Your task to perform on an android device: star an email in the gmail app Image 0: 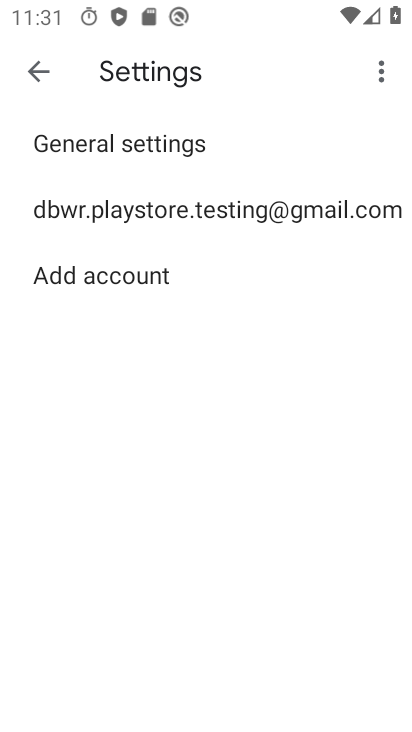
Step 0: click (38, 78)
Your task to perform on an android device: star an email in the gmail app Image 1: 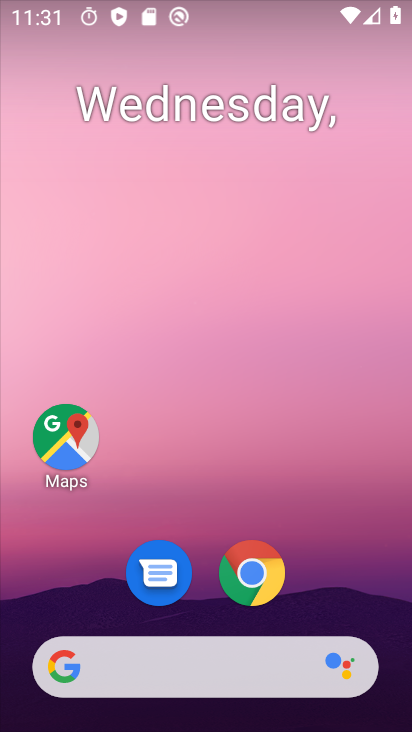
Step 1: drag from (357, 607) to (366, 335)
Your task to perform on an android device: star an email in the gmail app Image 2: 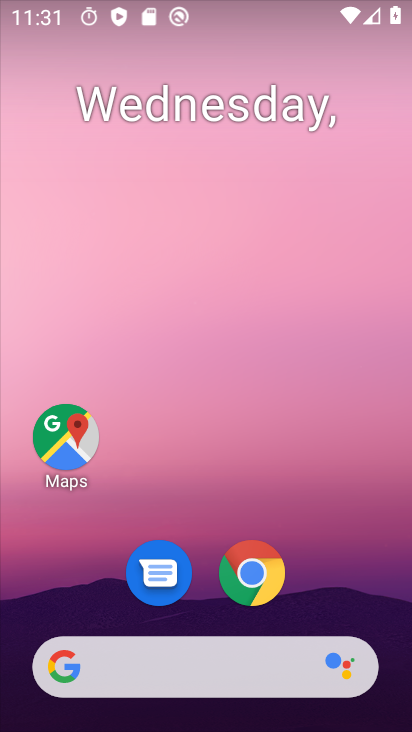
Step 2: drag from (387, 619) to (380, 242)
Your task to perform on an android device: star an email in the gmail app Image 3: 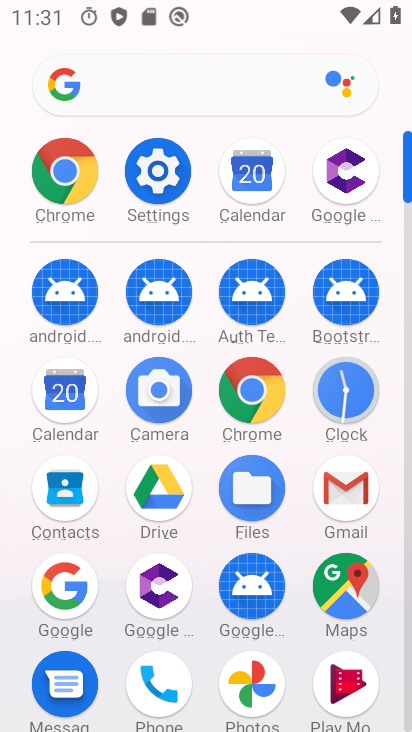
Step 3: click (331, 484)
Your task to perform on an android device: star an email in the gmail app Image 4: 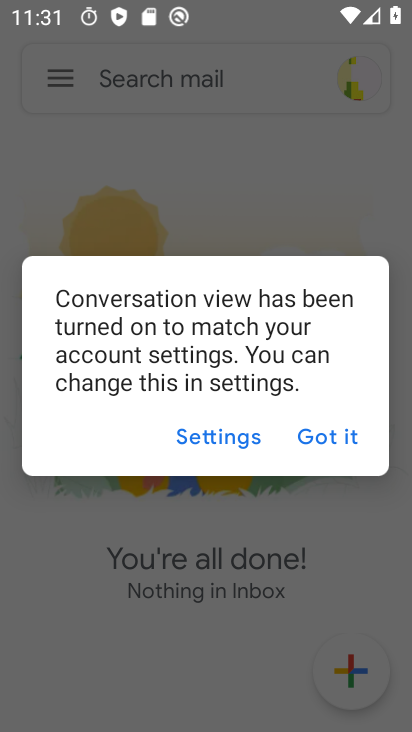
Step 4: click (310, 443)
Your task to perform on an android device: star an email in the gmail app Image 5: 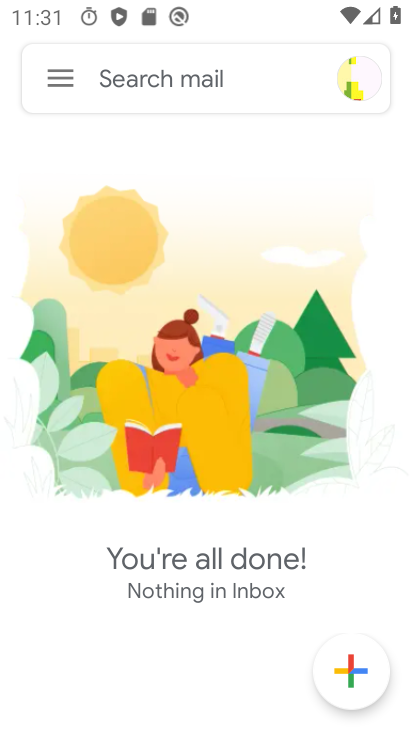
Step 5: click (57, 74)
Your task to perform on an android device: star an email in the gmail app Image 6: 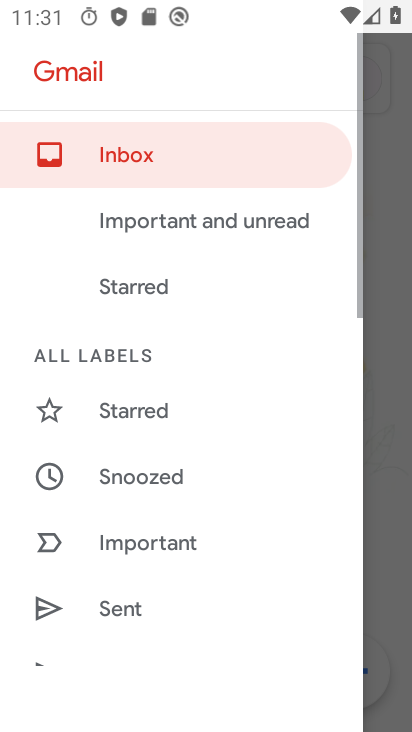
Step 6: click (97, 165)
Your task to perform on an android device: star an email in the gmail app Image 7: 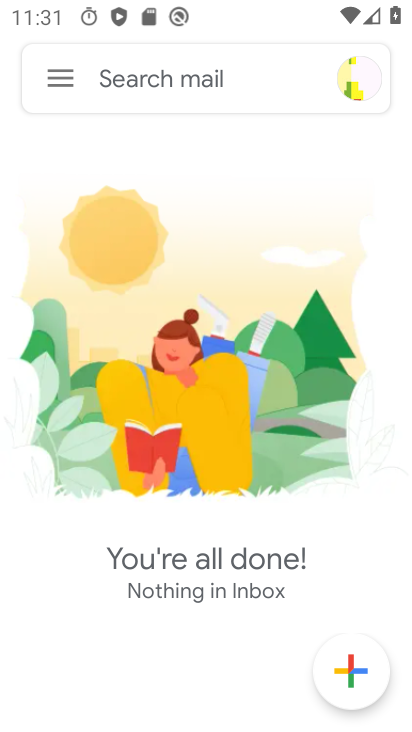
Step 7: task complete